Your task to perform on an android device: add a label to a message in the gmail app Image 0: 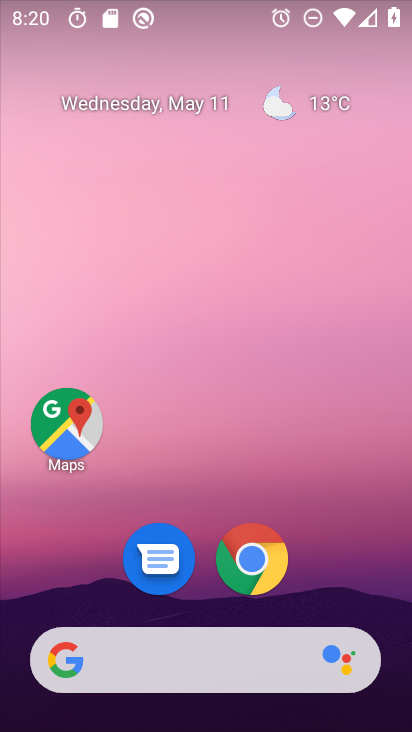
Step 0: drag from (322, 579) to (323, 41)
Your task to perform on an android device: add a label to a message in the gmail app Image 1: 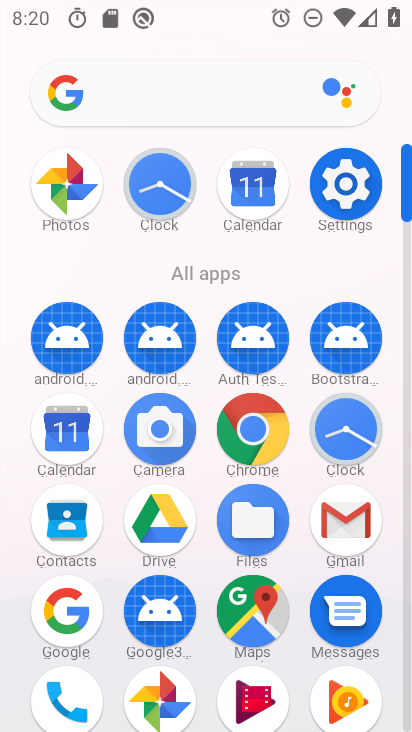
Step 1: click (368, 520)
Your task to perform on an android device: add a label to a message in the gmail app Image 2: 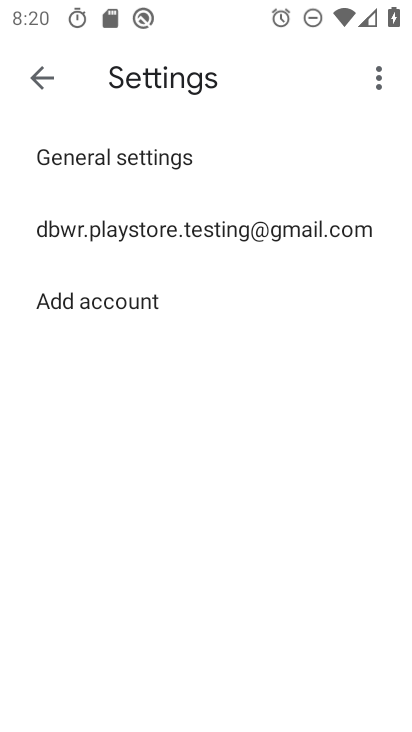
Step 2: click (28, 73)
Your task to perform on an android device: add a label to a message in the gmail app Image 3: 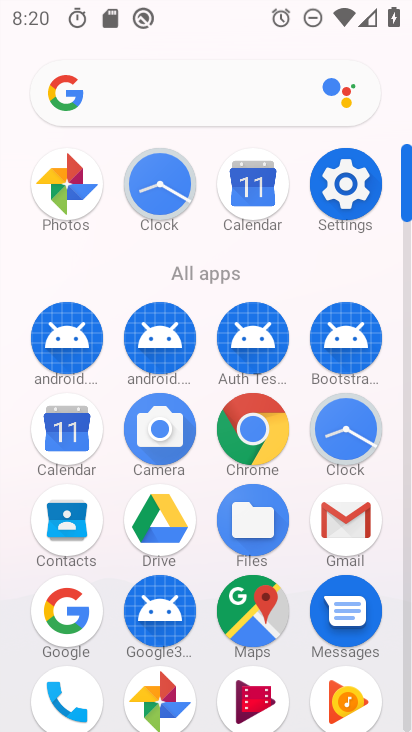
Step 3: click (348, 545)
Your task to perform on an android device: add a label to a message in the gmail app Image 4: 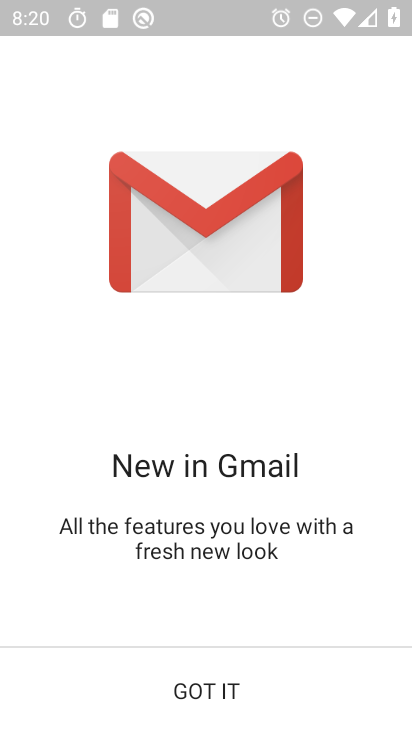
Step 4: click (245, 703)
Your task to perform on an android device: add a label to a message in the gmail app Image 5: 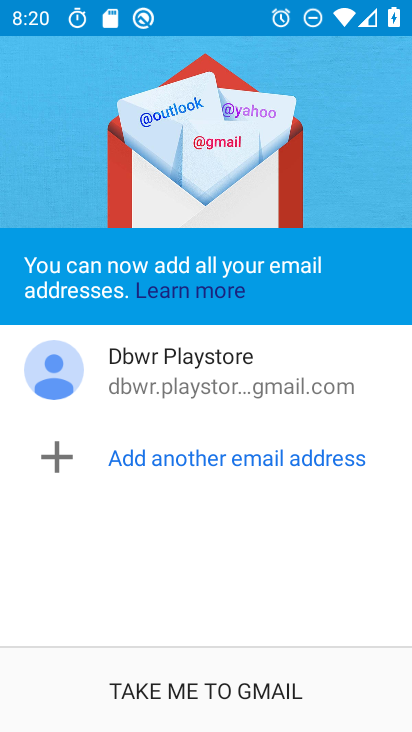
Step 5: click (174, 680)
Your task to perform on an android device: add a label to a message in the gmail app Image 6: 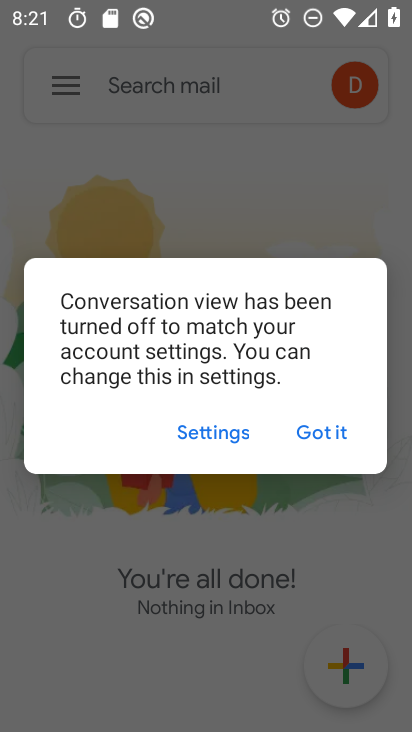
Step 6: click (331, 432)
Your task to perform on an android device: add a label to a message in the gmail app Image 7: 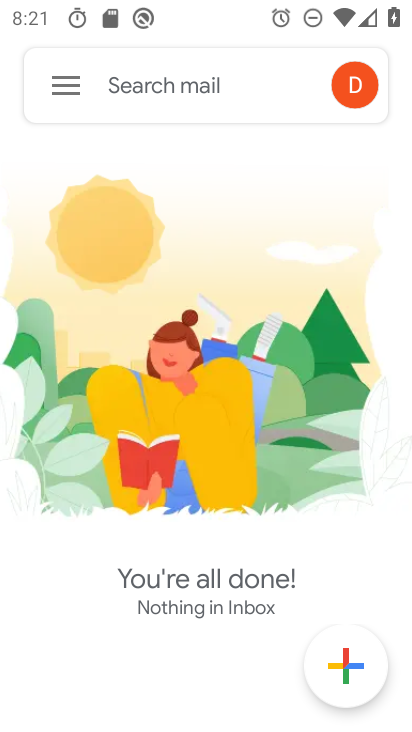
Step 7: click (65, 77)
Your task to perform on an android device: add a label to a message in the gmail app Image 8: 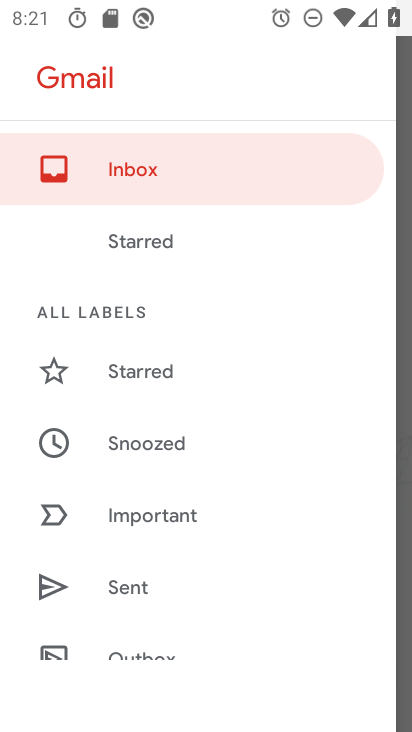
Step 8: drag from (182, 533) to (186, 150)
Your task to perform on an android device: add a label to a message in the gmail app Image 9: 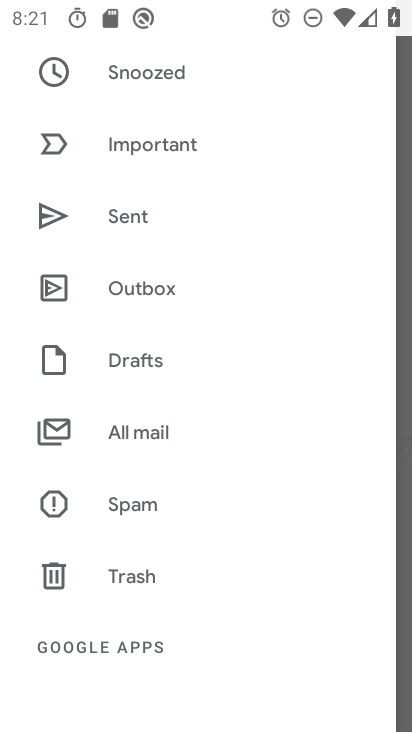
Step 9: click (142, 431)
Your task to perform on an android device: add a label to a message in the gmail app Image 10: 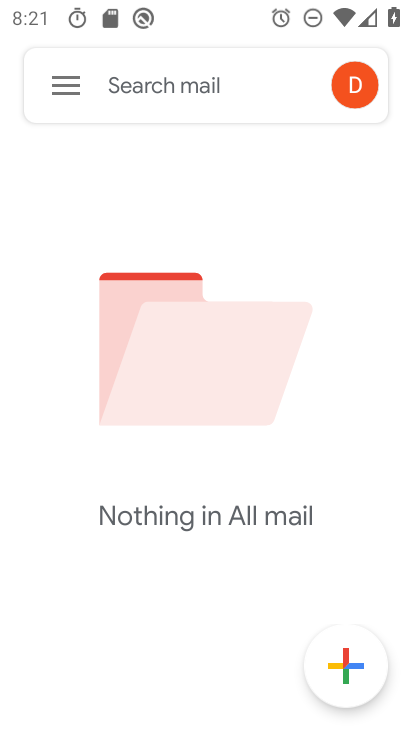
Step 10: task complete